Your task to perform on an android device: toggle show notifications on the lock screen Image 0: 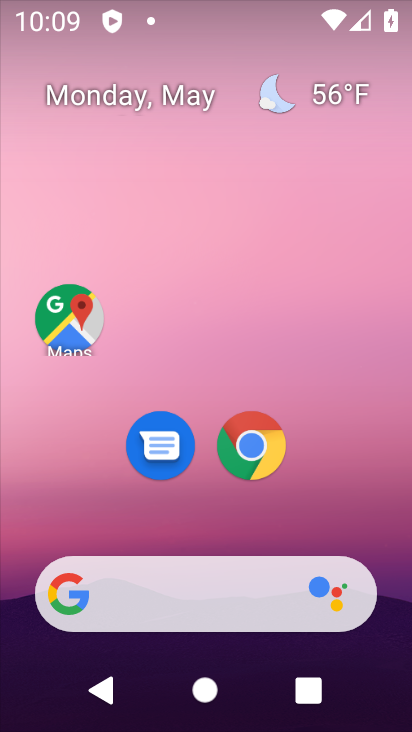
Step 0: press home button
Your task to perform on an android device: toggle show notifications on the lock screen Image 1: 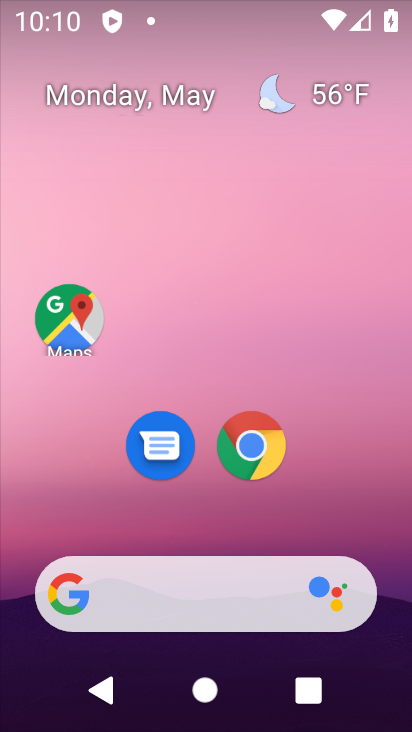
Step 1: drag from (210, 556) to (222, 238)
Your task to perform on an android device: toggle show notifications on the lock screen Image 2: 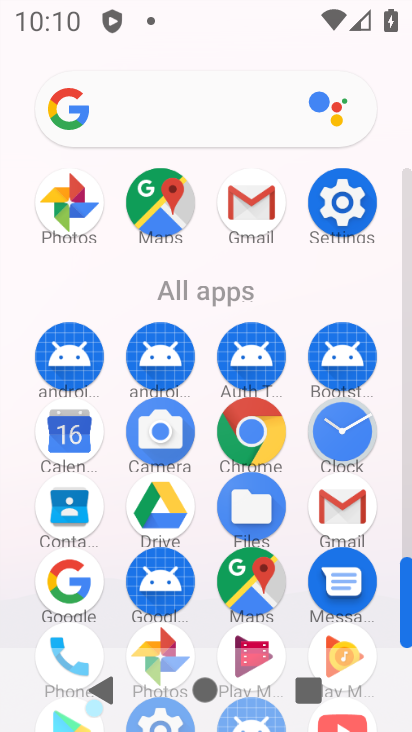
Step 2: click (342, 215)
Your task to perform on an android device: toggle show notifications on the lock screen Image 3: 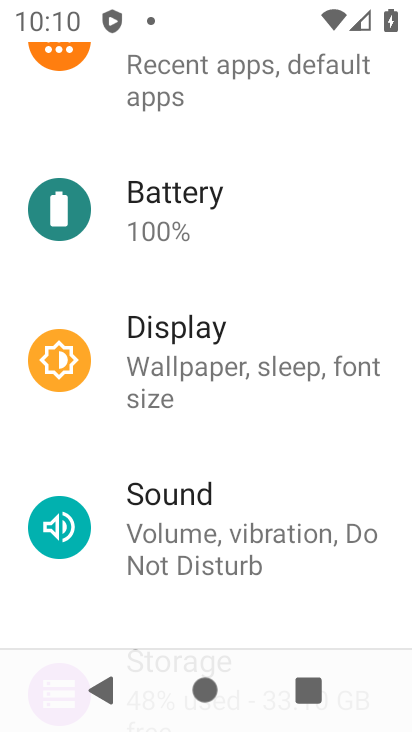
Step 3: drag from (208, 587) to (208, 285)
Your task to perform on an android device: toggle show notifications on the lock screen Image 4: 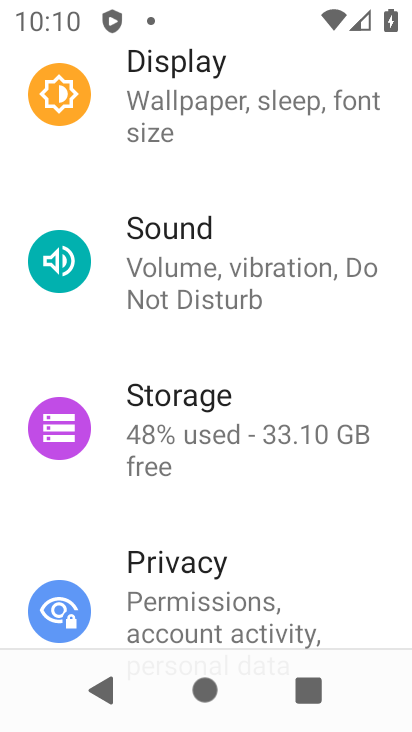
Step 4: click (165, 576)
Your task to perform on an android device: toggle show notifications on the lock screen Image 5: 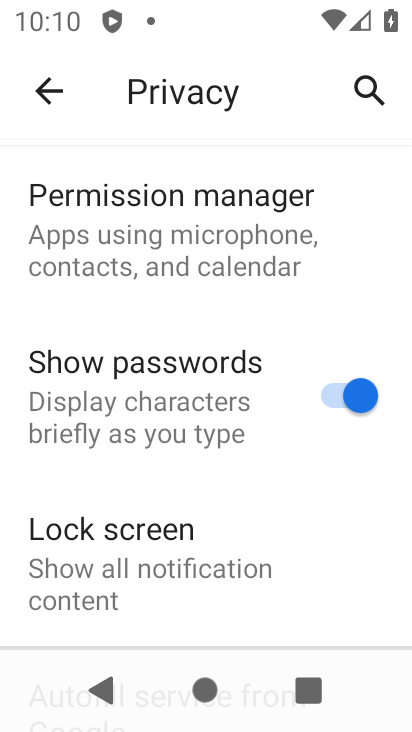
Step 5: click (147, 572)
Your task to perform on an android device: toggle show notifications on the lock screen Image 6: 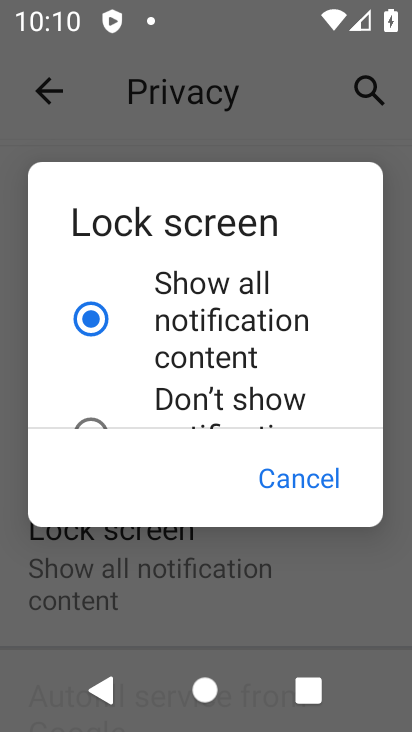
Step 6: click (96, 423)
Your task to perform on an android device: toggle show notifications on the lock screen Image 7: 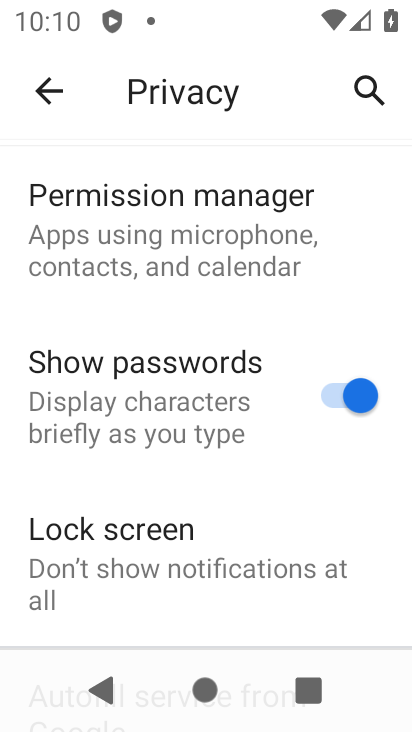
Step 7: task complete